Your task to perform on an android device: Do I have any events this weekend? Image 0: 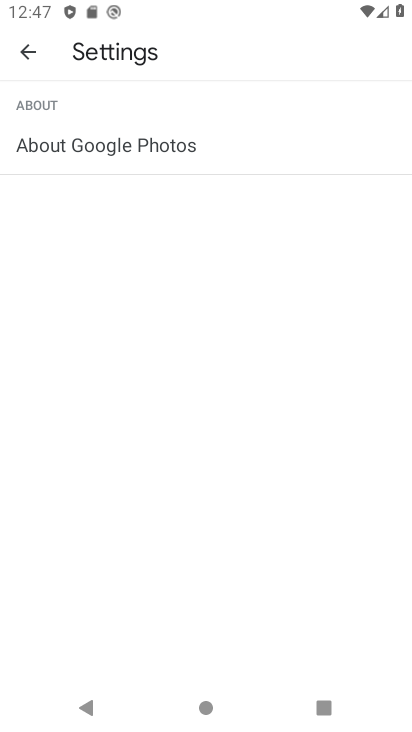
Step 0: click (36, 46)
Your task to perform on an android device: Do I have any events this weekend? Image 1: 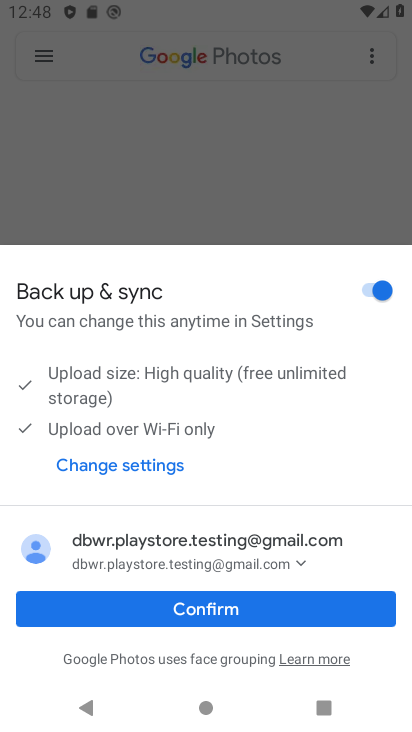
Step 1: press home button
Your task to perform on an android device: Do I have any events this weekend? Image 2: 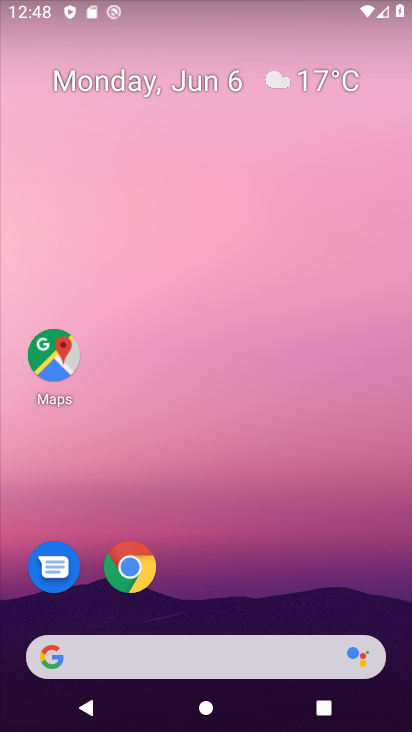
Step 2: drag from (241, 718) to (360, 251)
Your task to perform on an android device: Do I have any events this weekend? Image 3: 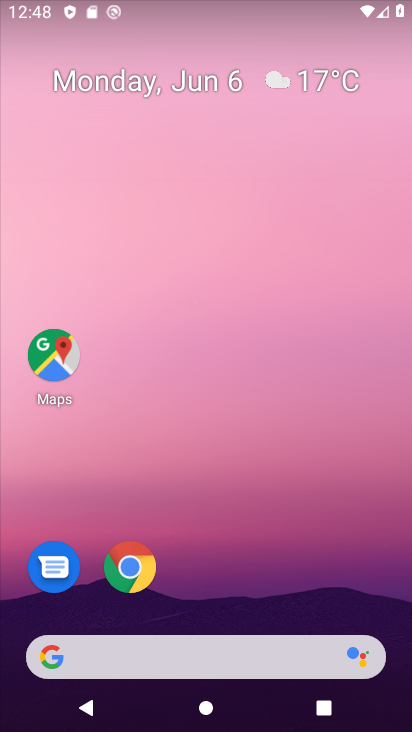
Step 3: drag from (231, 675) to (71, 622)
Your task to perform on an android device: Do I have any events this weekend? Image 4: 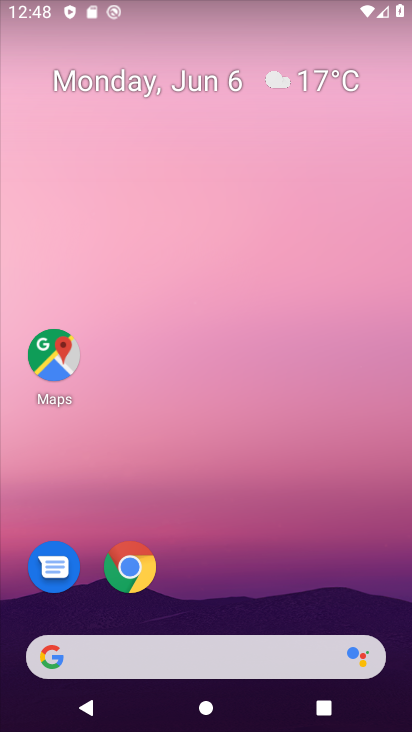
Step 4: drag from (150, 608) to (181, 45)
Your task to perform on an android device: Do I have any events this weekend? Image 5: 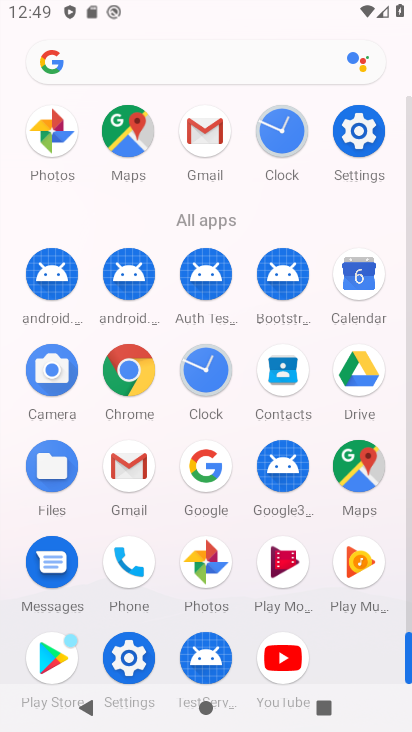
Step 5: click (372, 282)
Your task to perform on an android device: Do I have any events this weekend? Image 6: 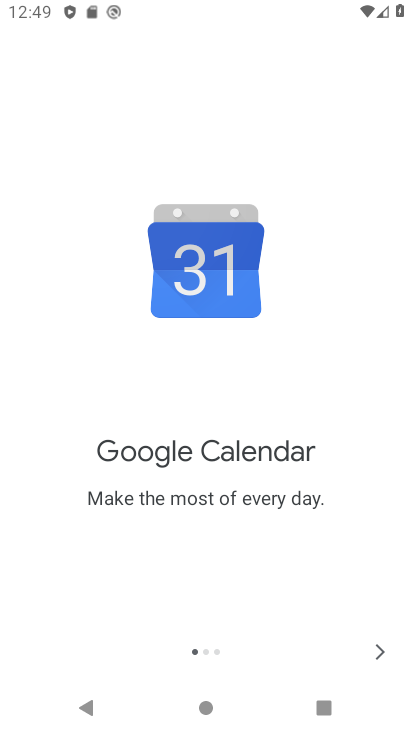
Step 6: click (383, 664)
Your task to perform on an android device: Do I have any events this weekend? Image 7: 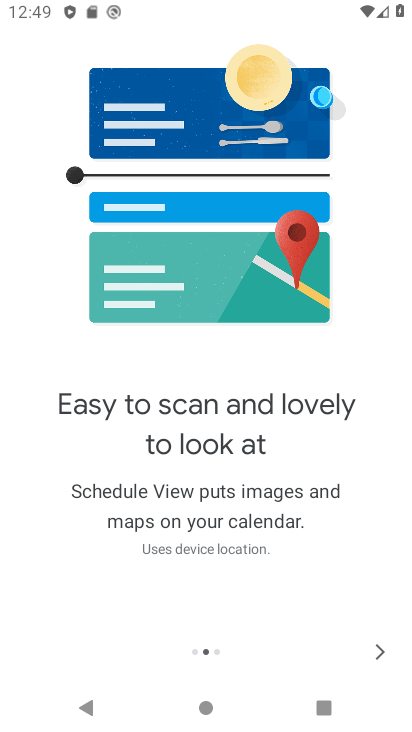
Step 7: click (383, 664)
Your task to perform on an android device: Do I have any events this weekend? Image 8: 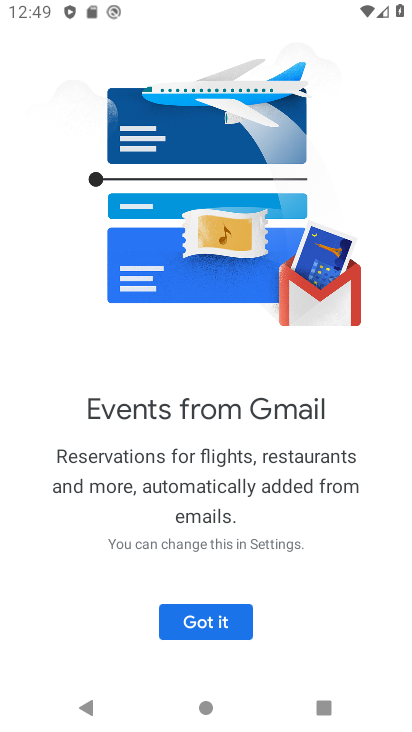
Step 8: click (383, 664)
Your task to perform on an android device: Do I have any events this weekend? Image 9: 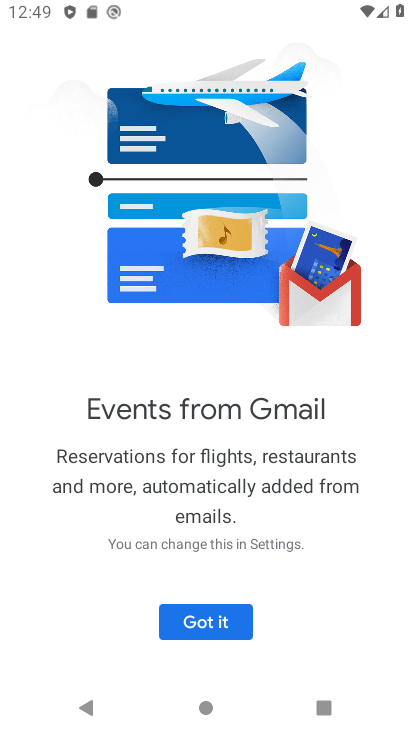
Step 9: click (214, 616)
Your task to perform on an android device: Do I have any events this weekend? Image 10: 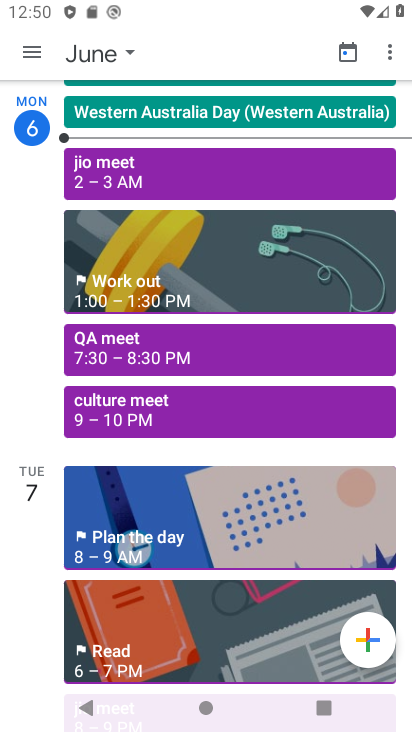
Step 10: click (95, 59)
Your task to perform on an android device: Do I have any events this weekend? Image 11: 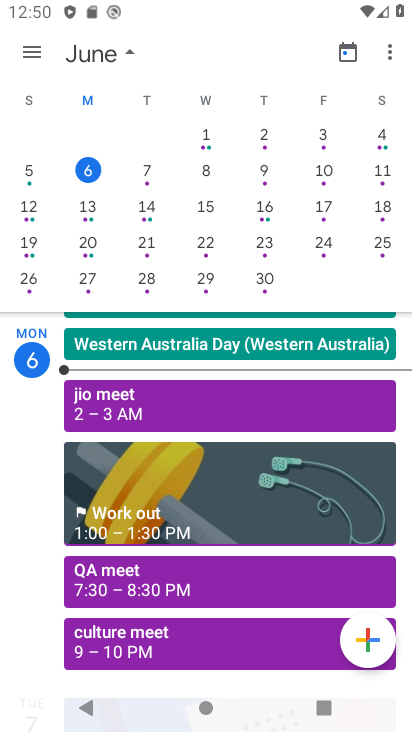
Step 11: click (382, 176)
Your task to perform on an android device: Do I have any events this weekend? Image 12: 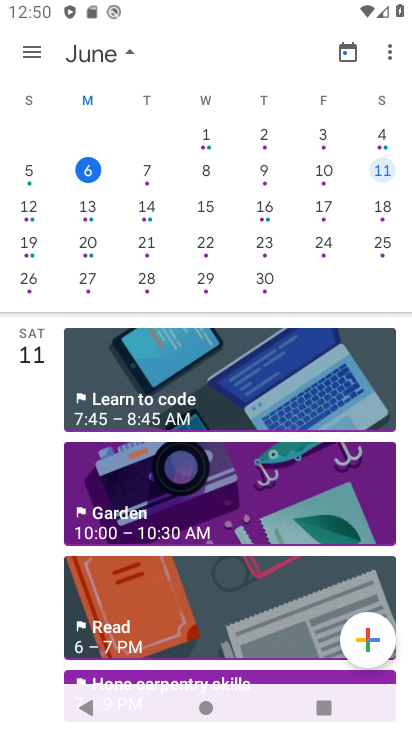
Step 12: task complete